Your task to perform on an android device: Open Youtube and go to the subscriptions tab Image 0: 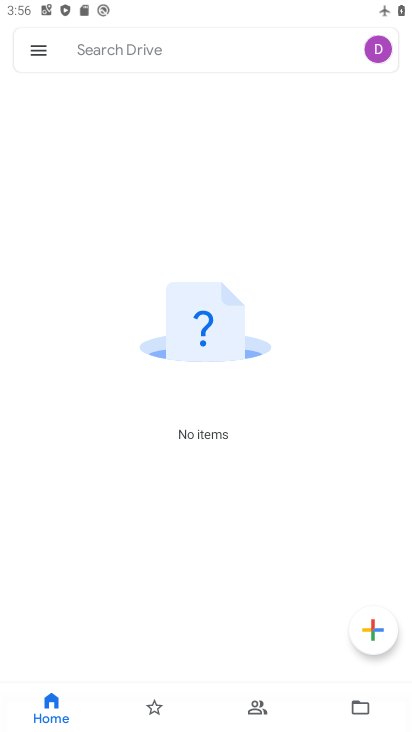
Step 0: press home button
Your task to perform on an android device: Open Youtube and go to the subscriptions tab Image 1: 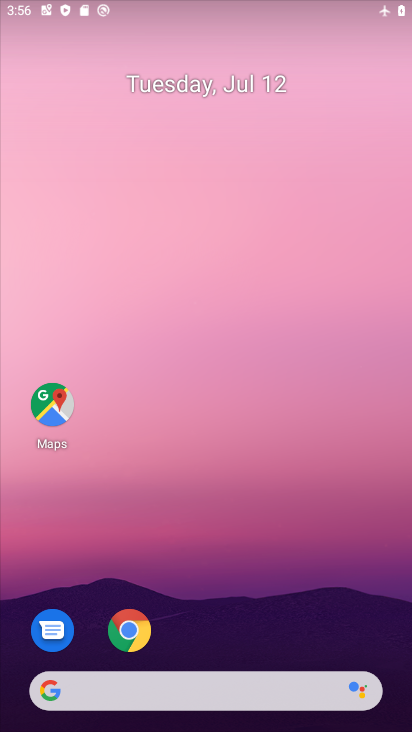
Step 1: drag from (188, 691) to (308, 9)
Your task to perform on an android device: Open Youtube and go to the subscriptions tab Image 2: 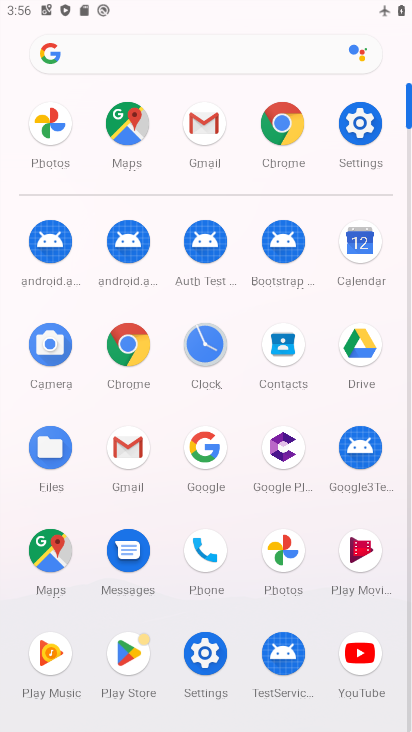
Step 2: click (362, 651)
Your task to perform on an android device: Open Youtube and go to the subscriptions tab Image 3: 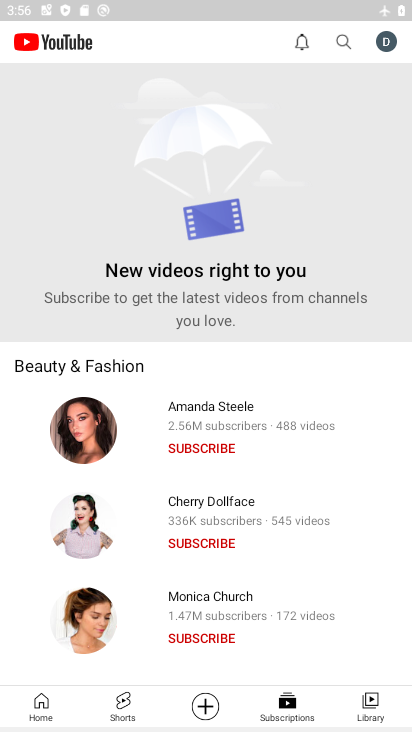
Step 3: click (289, 723)
Your task to perform on an android device: Open Youtube and go to the subscriptions tab Image 4: 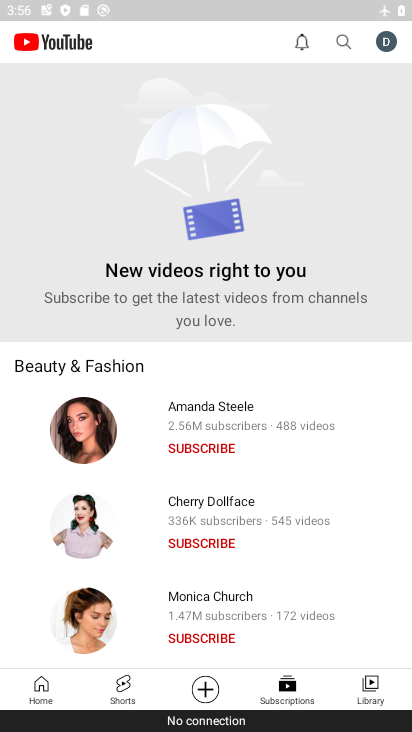
Step 4: task complete